Your task to perform on an android device: Open accessibility settings Image 0: 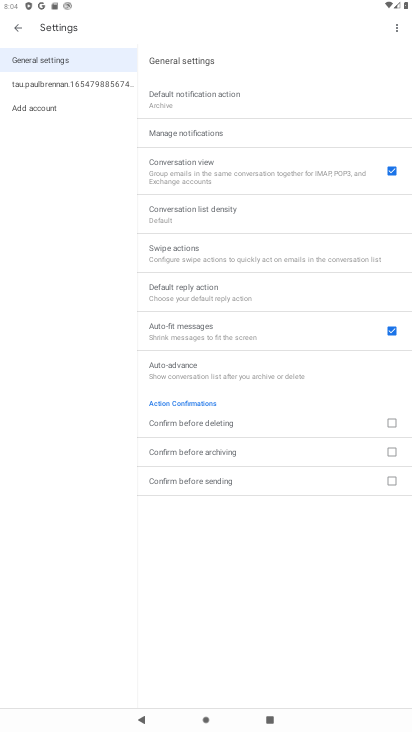
Step 0: click (111, 86)
Your task to perform on an android device: Open accessibility settings Image 1: 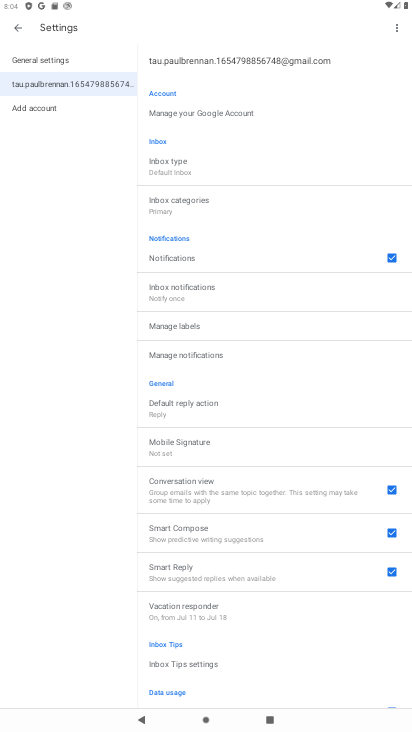
Step 1: press home button
Your task to perform on an android device: Open accessibility settings Image 2: 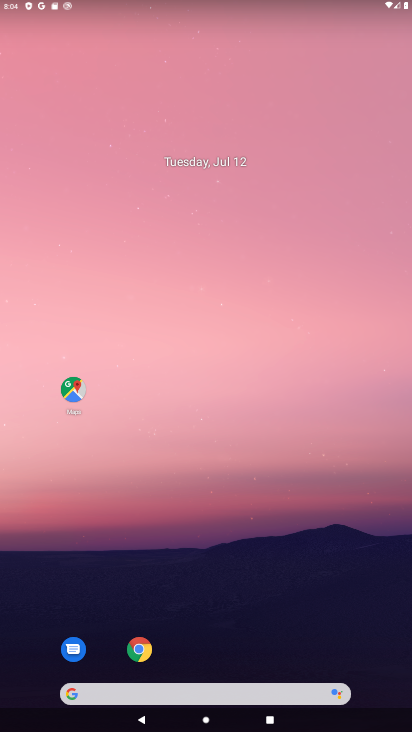
Step 2: drag from (224, 649) to (237, 214)
Your task to perform on an android device: Open accessibility settings Image 3: 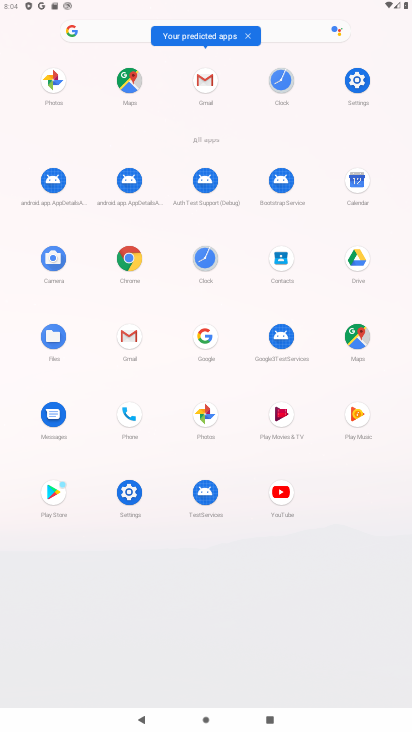
Step 3: click (361, 94)
Your task to perform on an android device: Open accessibility settings Image 4: 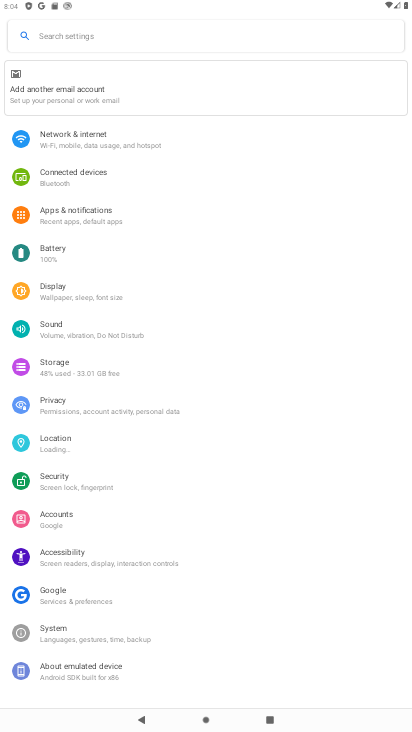
Step 4: click (128, 547)
Your task to perform on an android device: Open accessibility settings Image 5: 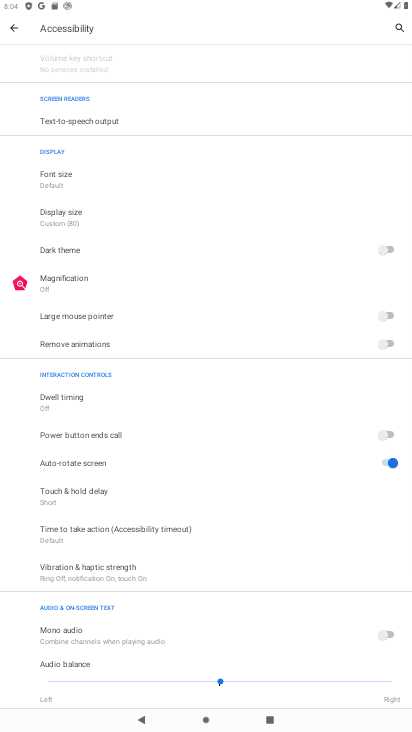
Step 5: task complete